Your task to perform on an android device: Go to battery settings Image 0: 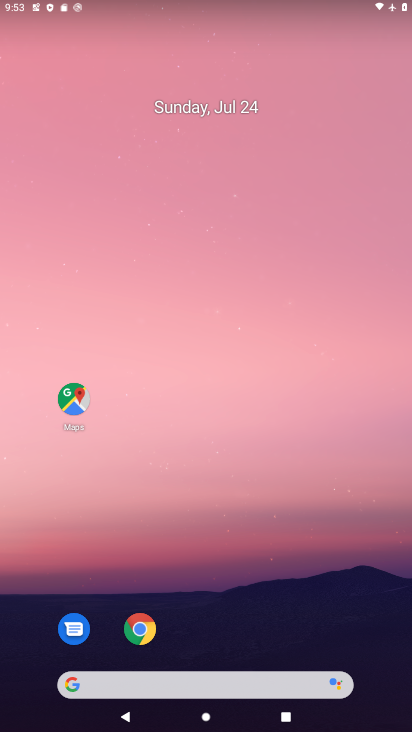
Step 0: drag from (240, 657) to (230, 283)
Your task to perform on an android device: Go to battery settings Image 1: 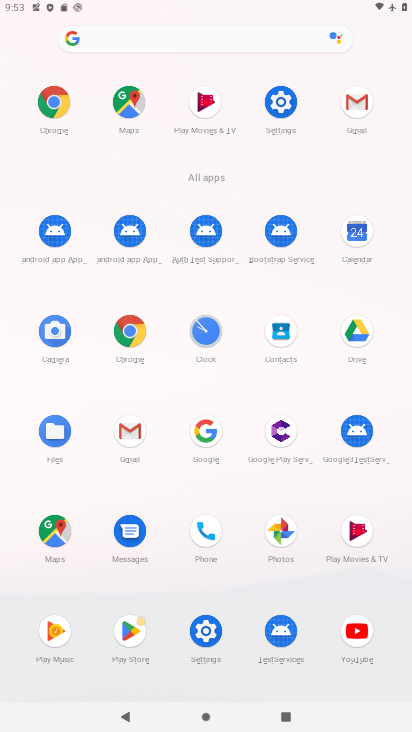
Step 1: click (269, 135)
Your task to perform on an android device: Go to battery settings Image 2: 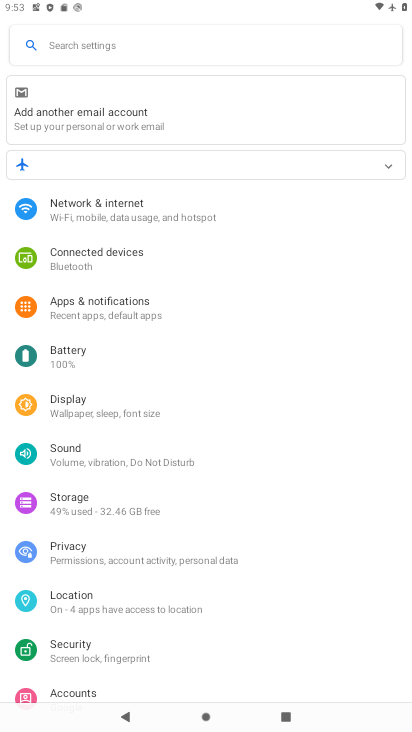
Step 2: click (136, 365)
Your task to perform on an android device: Go to battery settings Image 3: 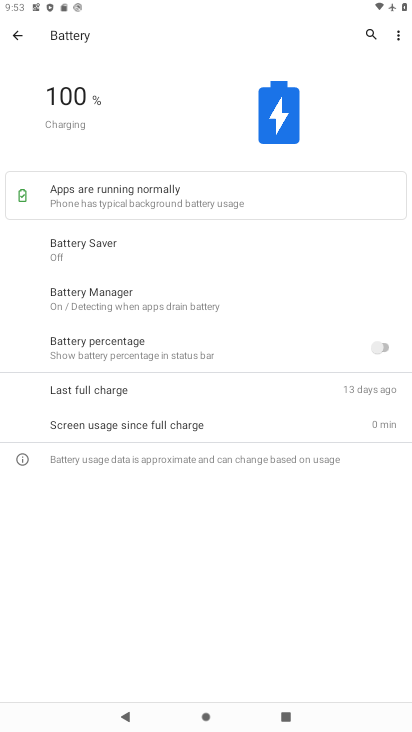
Step 3: task complete